Your task to perform on an android device: See recent photos Image 0: 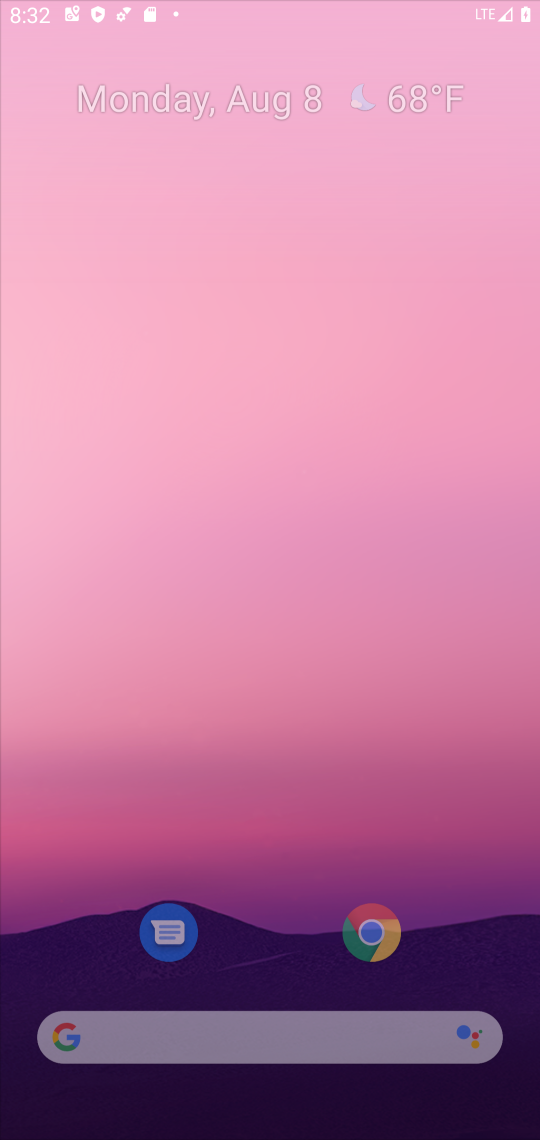
Step 0: drag from (465, 974) to (271, 4)
Your task to perform on an android device: See recent photos Image 1: 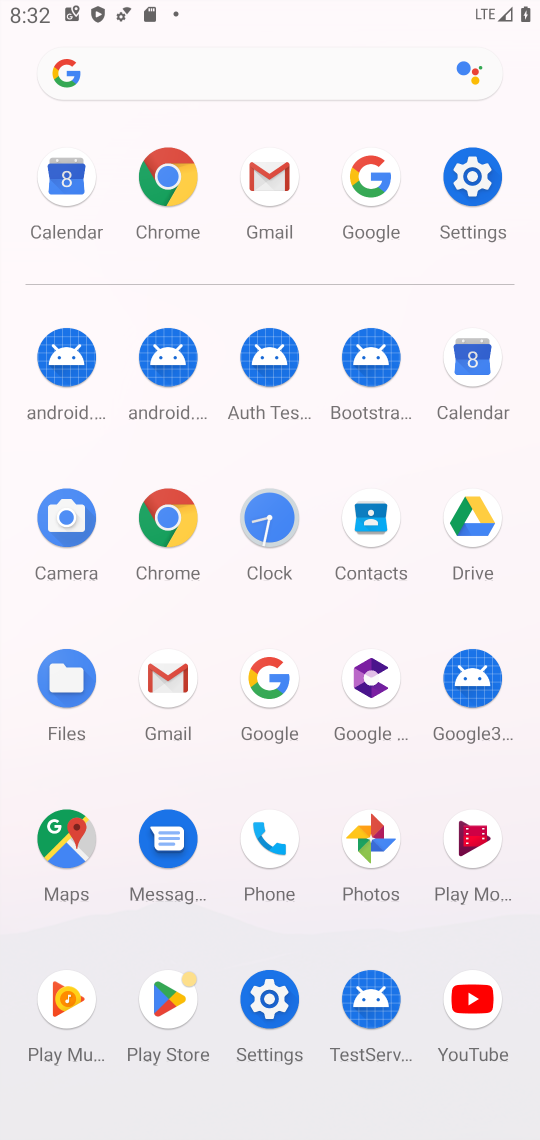
Step 1: click (359, 856)
Your task to perform on an android device: See recent photos Image 2: 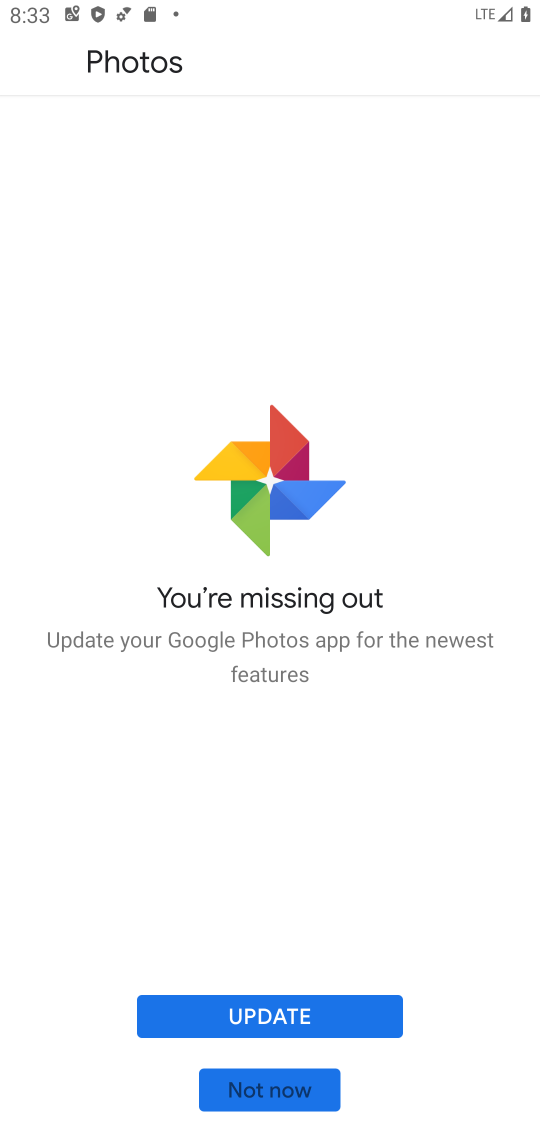
Step 2: click (224, 1025)
Your task to perform on an android device: See recent photos Image 3: 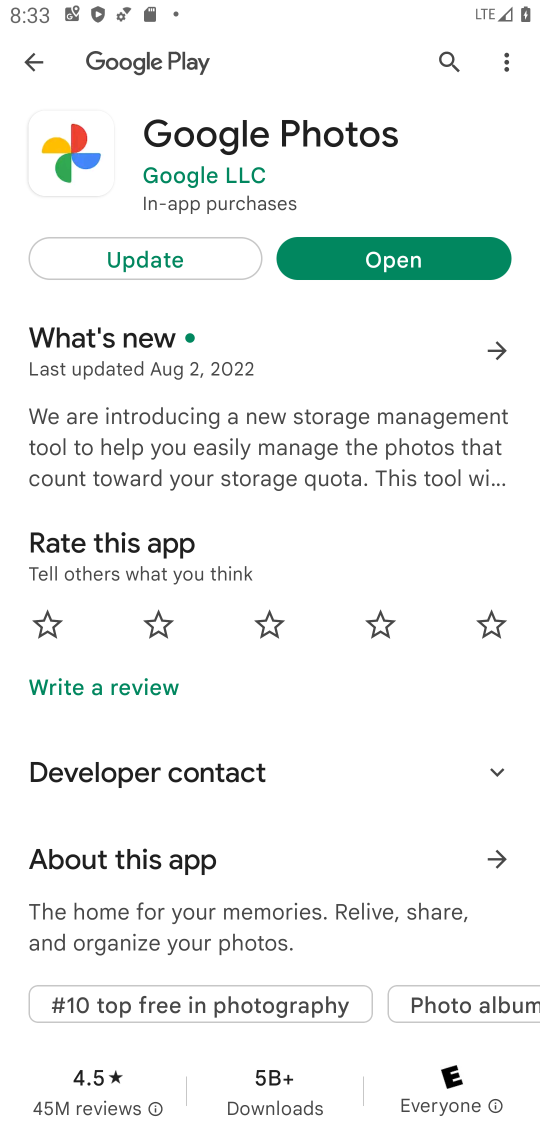
Step 3: click (155, 260)
Your task to perform on an android device: See recent photos Image 4: 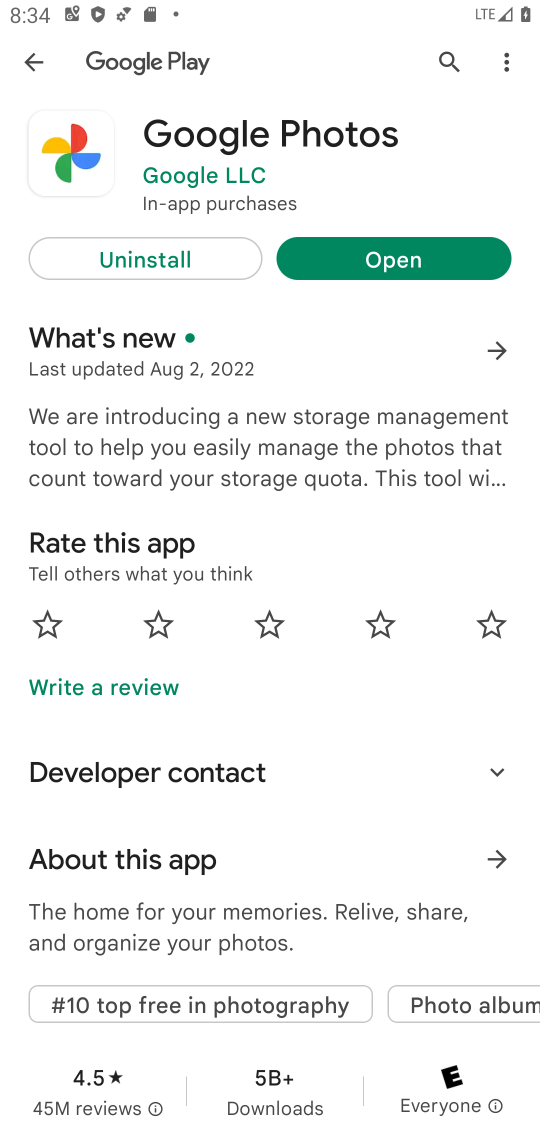
Step 4: click (357, 268)
Your task to perform on an android device: See recent photos Image 5: 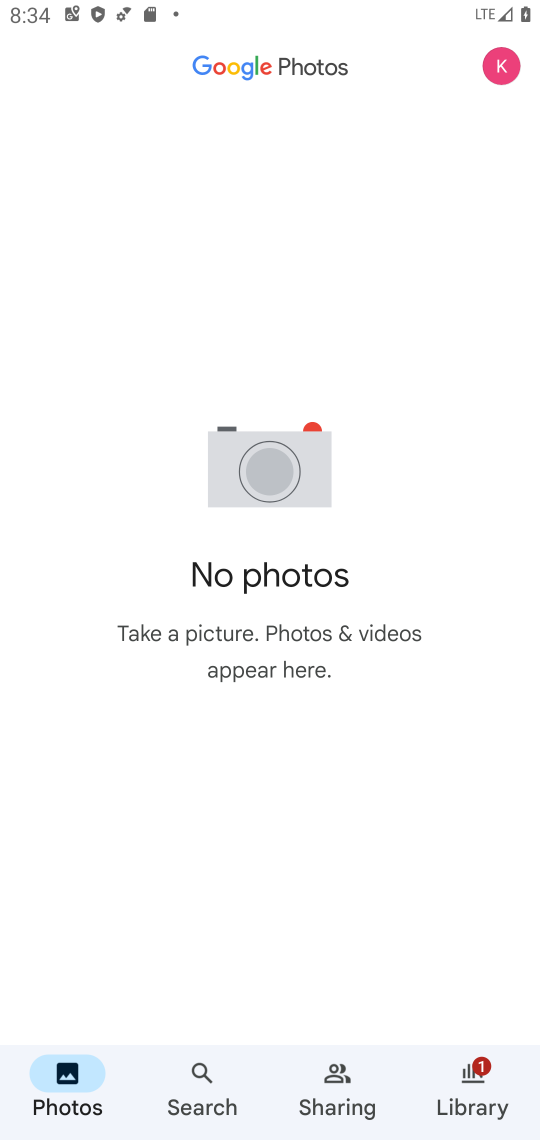
Step 5: task complete